Your task to perform on an android device: turn off notifications in google photos Image 0: 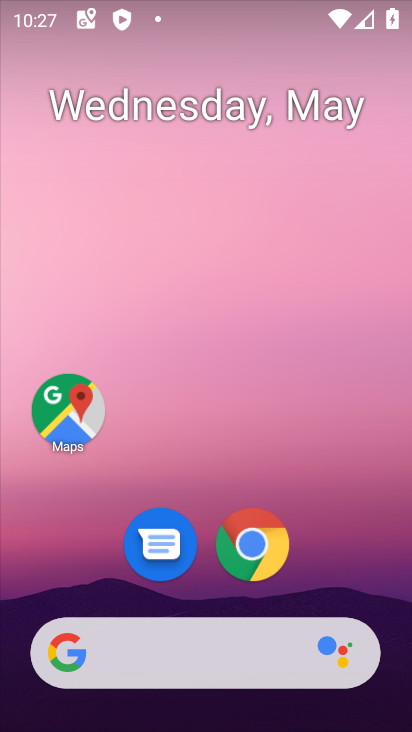
Step 0: drag from (302, 678) to (312, 104)
Your task to perform on an android device: turn off notifications in google photos Image 1: 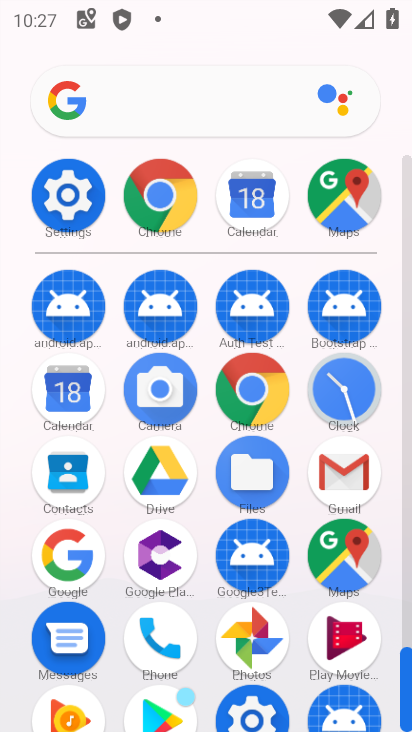
Step 1: click (243, 632)
Your task to perform on an android device: turn off notifications in google photos Image 2: 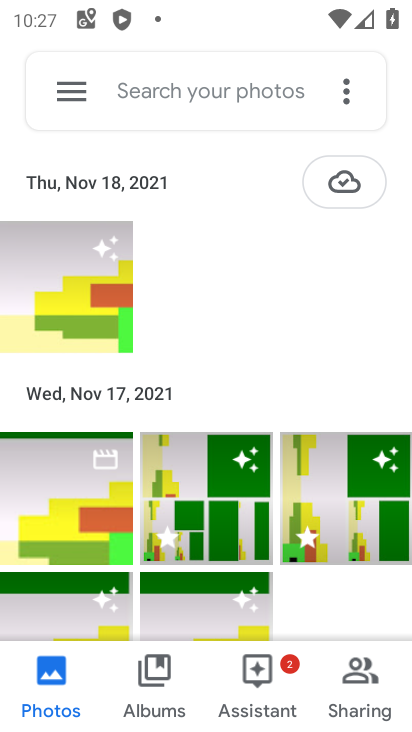
Step 2: click (62, 89)
Your task to perform on an android device: turn off notifications in google photos Image 3: 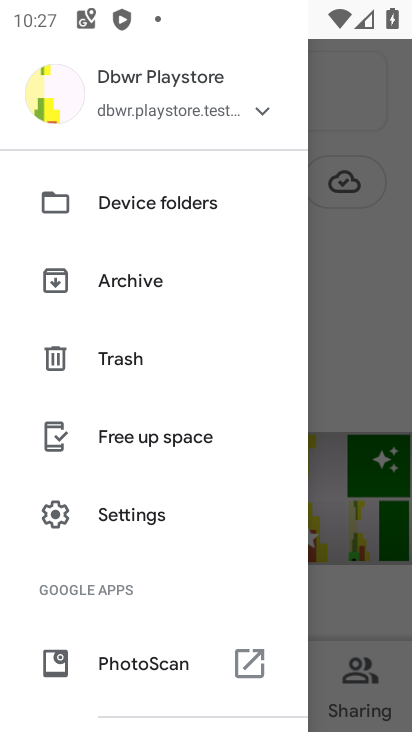
Step 3: click (177, 517)
Your task to perform on an android device: turn off notifications in google photos Image 4: 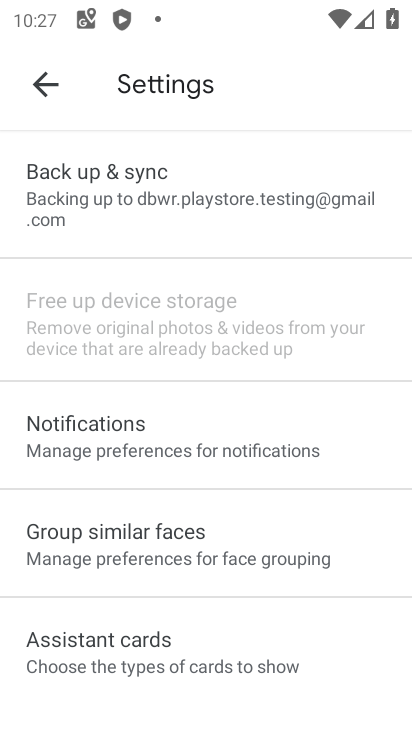
Step 4: click (166, 469)
Your task to perform on an android device: turn off notifications in google photos Image 5: 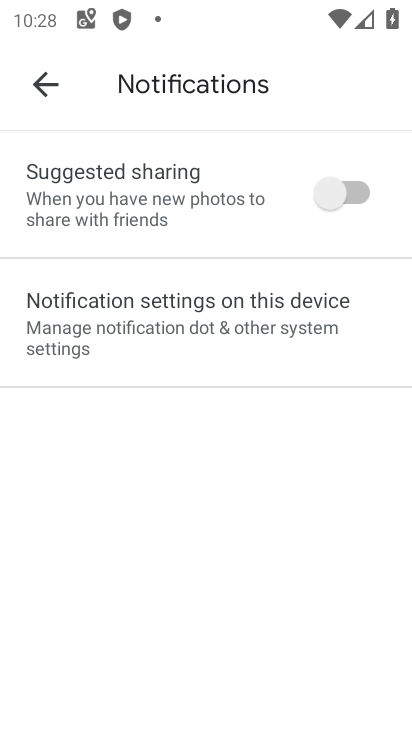
Step 5: drag from (164, 485) to (209, 190)
Your task to perform on an android device: turn off notifications in google photos Image 6: 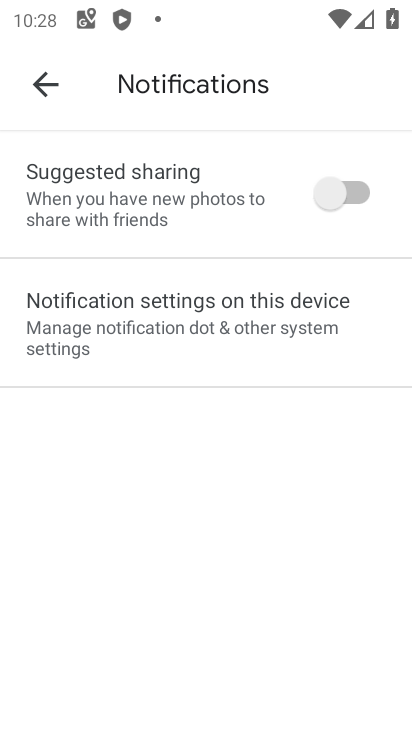
Step 6: click (200, 305)
Your task to perform on an android device: turn off notifications in google photos Image 7: 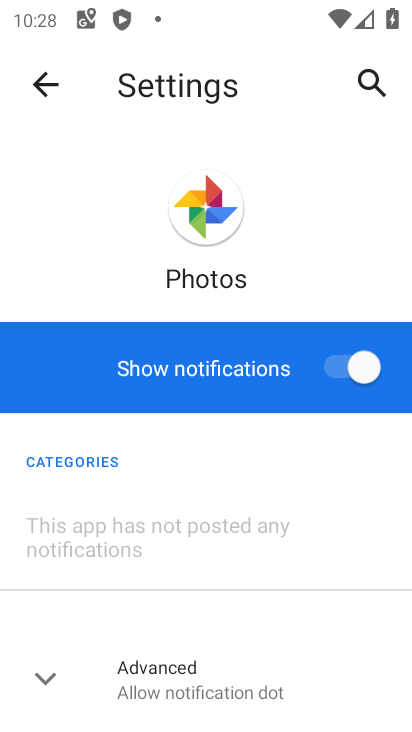
Step 7: click (344, 368)
Your task to perform on an android device: turn off notifications in google photos Image 8: 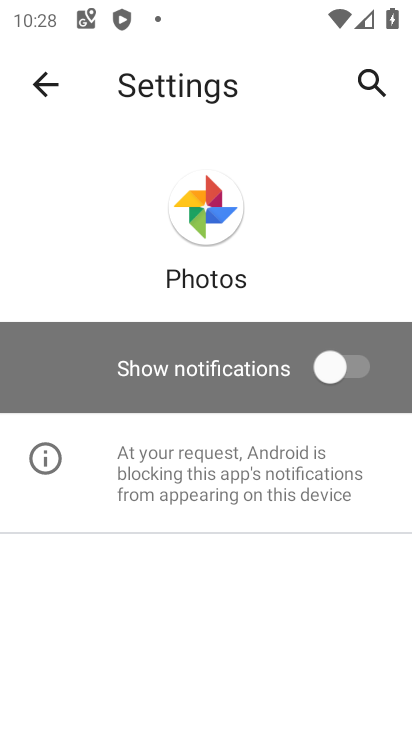
Step 8: task complete